Your task to perform on an android device: Check the weather Image 0: 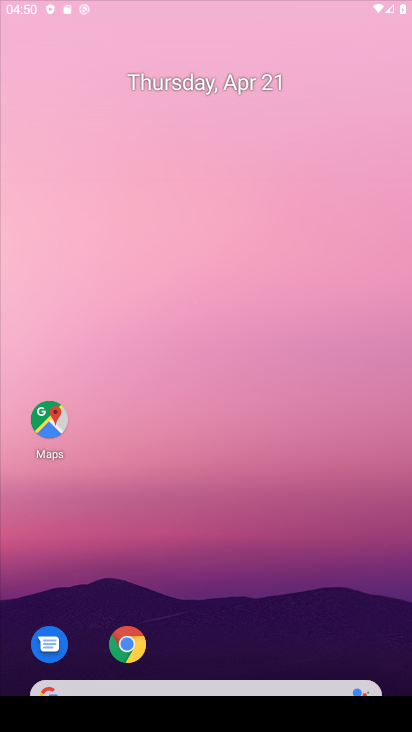
Step 0: click (338, 173)
Your task to perform on an android device: Check the weather Image 1: 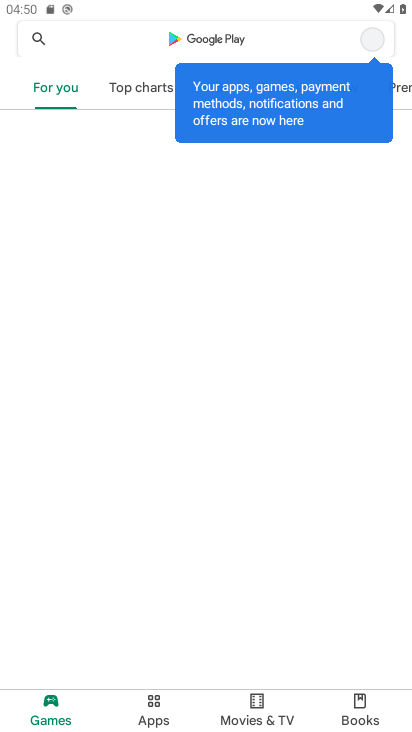
Step 1: press home button
Your task to perform on an android device: Check the weather Image 2: 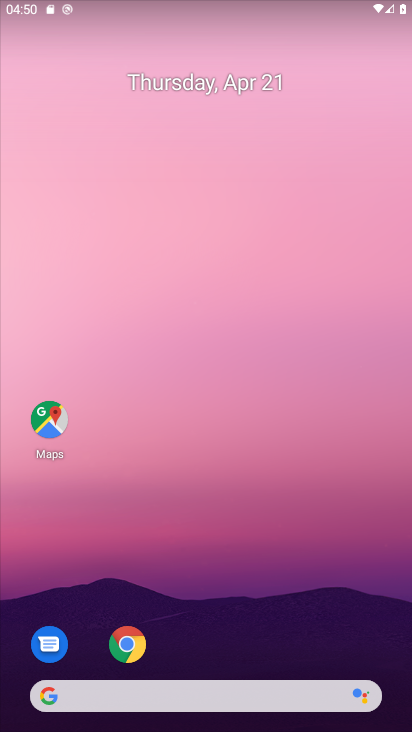
Step 2: drag from (273, 378) to (299, 220)
Your task to perform on an android device: Check the weather Image 3: 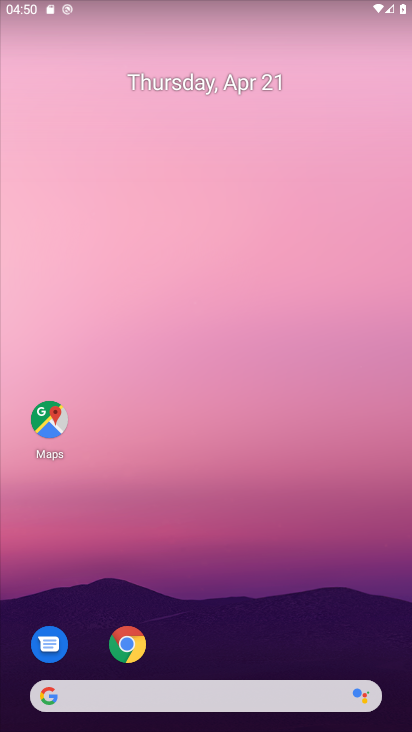
Step 3: drag from (333, 553) to (270, 158)
Your task to perform on an android device: Check the weather Image 4: 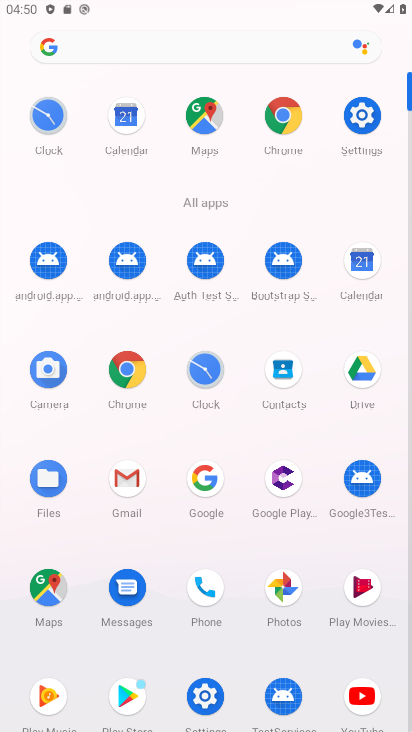
Step 4: click (130, 374)
Your task to perform on an android device: Check the weather Image 5: 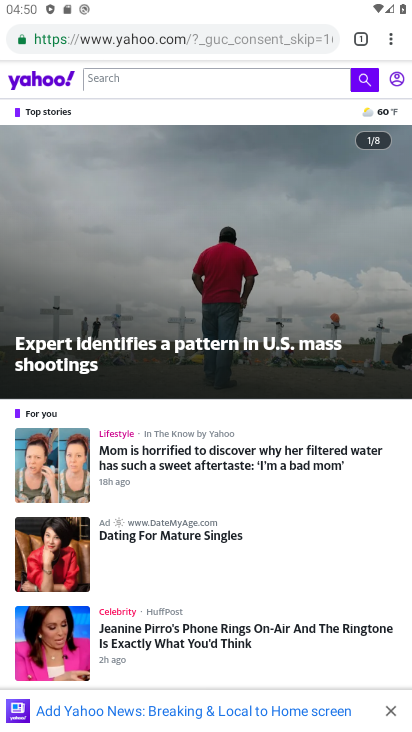
Step 5: click (243, 38)
Your task to perform on an android device: Check the weather Image 6: 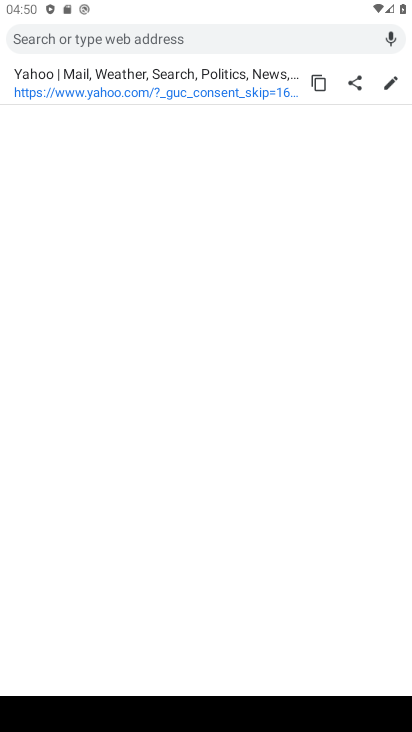
Step 6: type "weather"
Your task to perform on an android device: Check the weather Image 7: 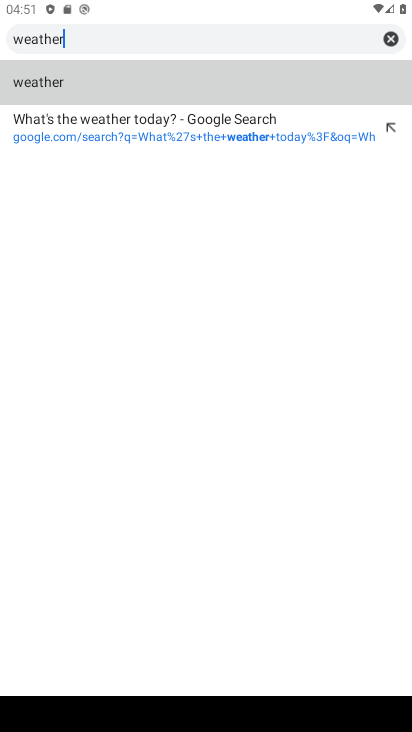
Step 7: click (49, 83)
Your task to perform on an android device: Check the weather Image 8: 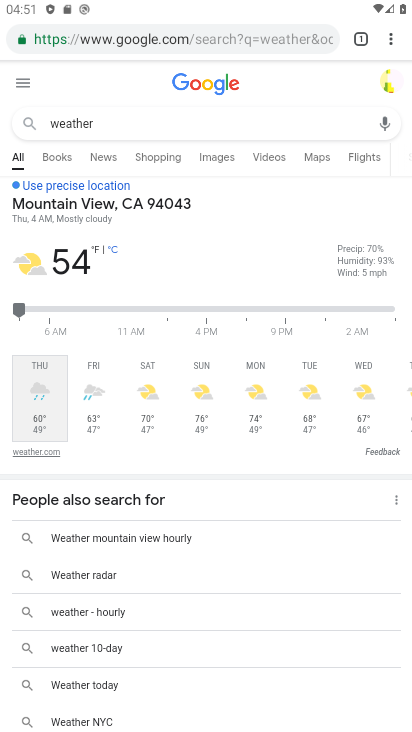
Step 8: task complete